Your task to perform on an android device: Open maps Image 0: 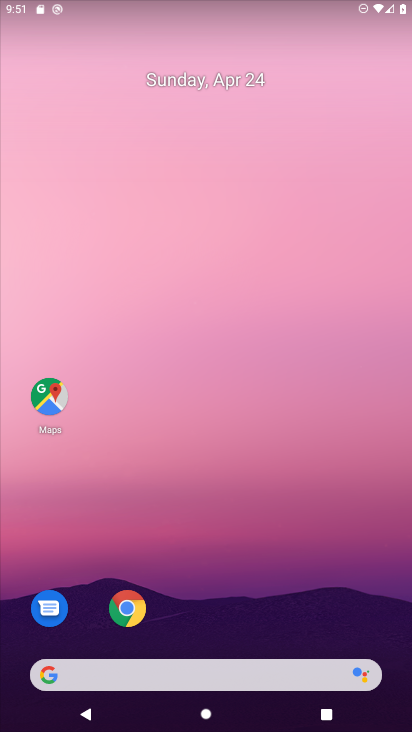
Step 0: drag from (271, 695) to (274, 325)
Your task to perform on an android device: Open maps Image 1: 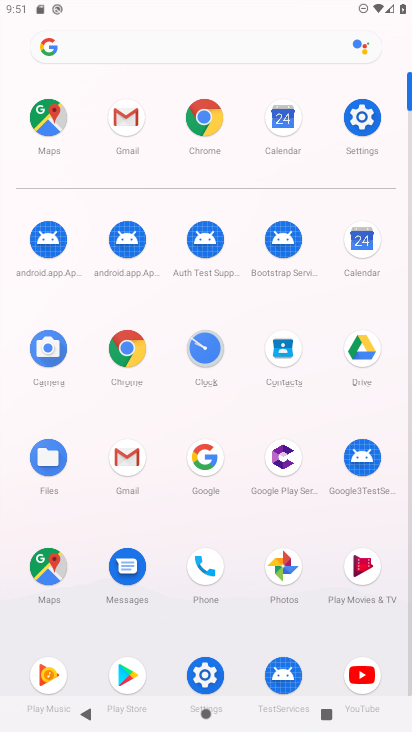
Step 1: click (60, 122)
Your task to perform on an android device: Open maps Image 2: 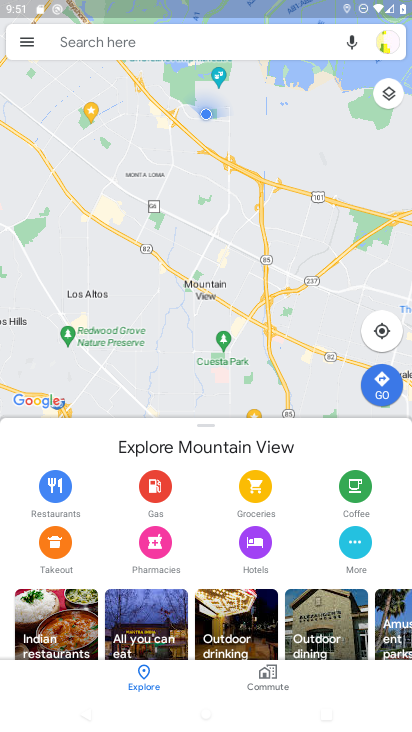
Step 2: click (163, 50)
Your task to perform on an android device: Open maps Image 3: 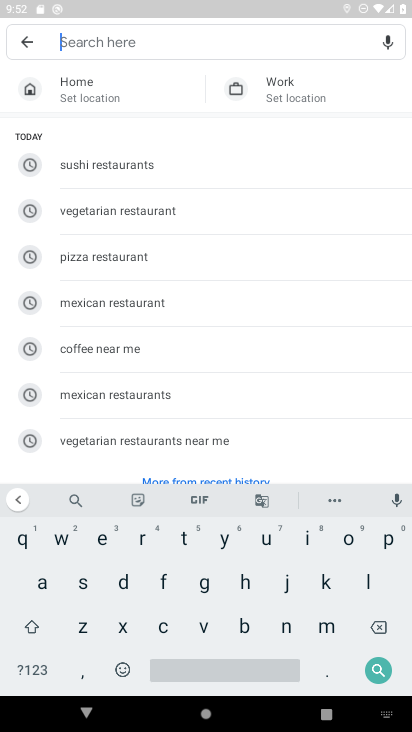
Step 3: click (31, 40)
Your task to perform on an android device: Open maps Image 4: 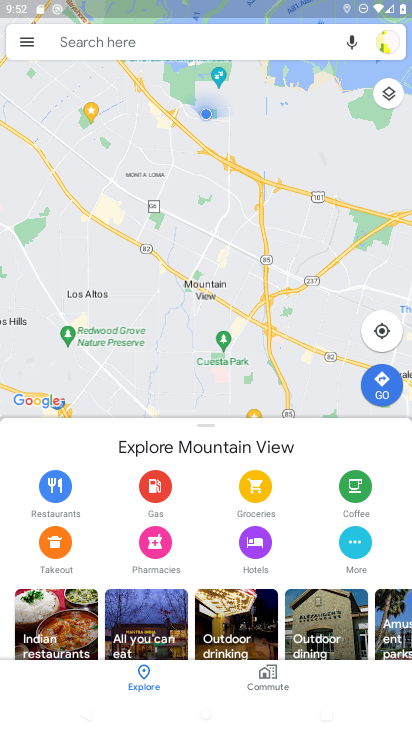
Step 4: task complete